Your task to perform on an android device: all mails in gmail Image 0: 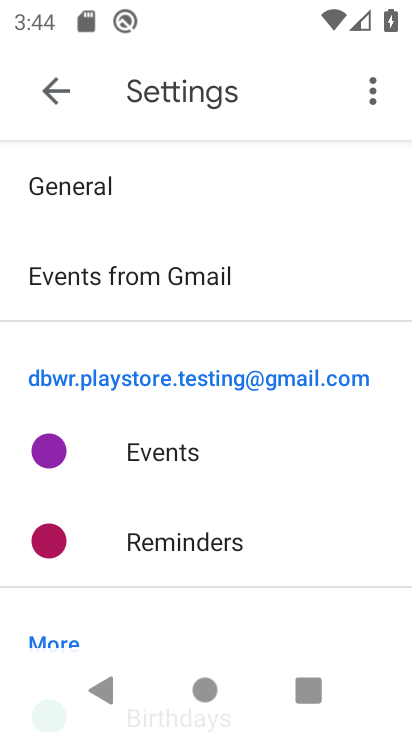
Step 0: press home button
Your task to perform on an android device: all mails in gmail Image 1: 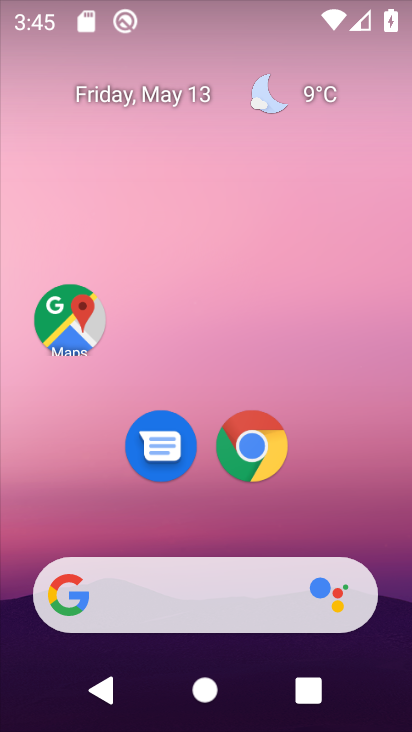
Step 1: drag from (336, 501) to (295, 64)
Your task to perform on an android device: all mails in gmail Image 2: 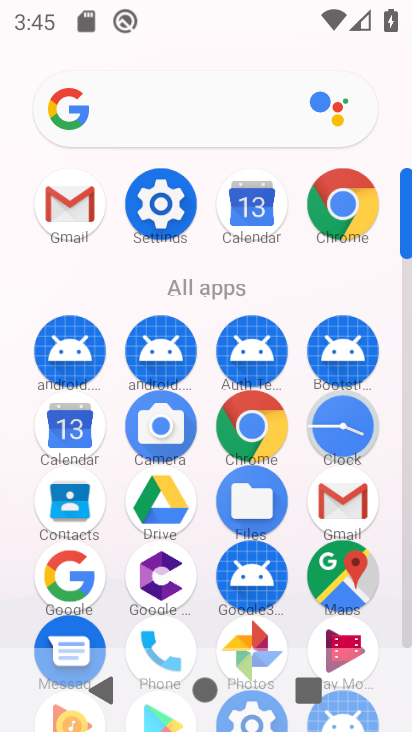
Step 2: click (331, 500)
Your task to perform on an android device: all mails in gmail Image 3: 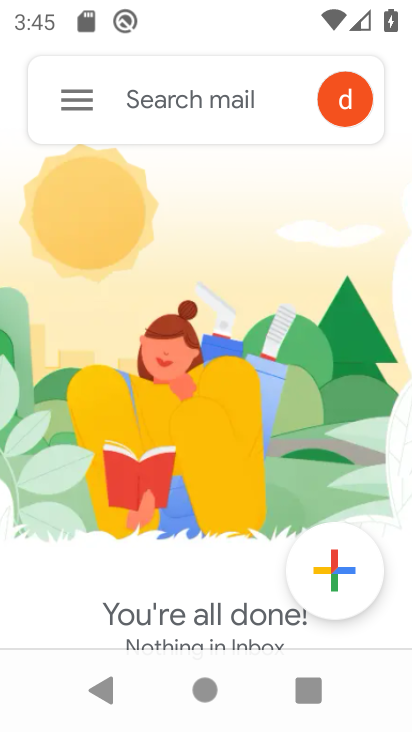
Step 3: click (81, 99)
Your task to perform on an android device: all mails in gmail Image 4: 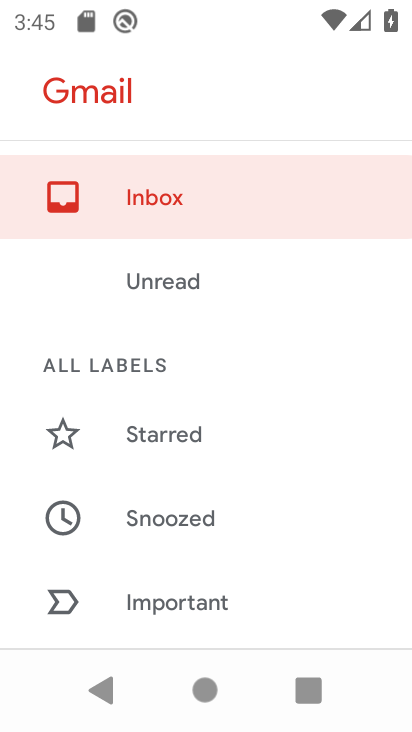
Step 4: drag from (198, 580) to (215, 185)
Your task to perform on an android device: all mails in gmail Image 5: 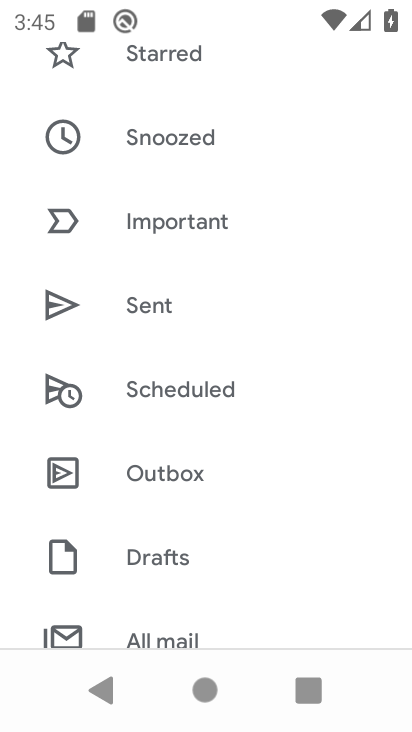
Step 5: drag from (230, 569) to (232, 182)
Your task to perform on an android device: all mails in gmail Image 6: 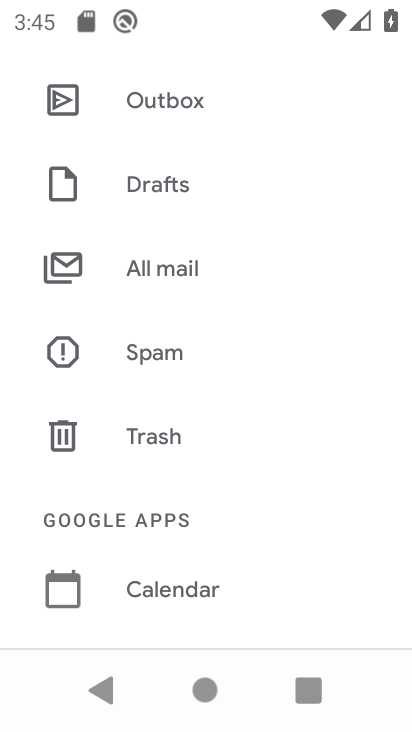
Step 6: click (192, 277)
Your task to perform on an android device: all mails in gmail Image 7: 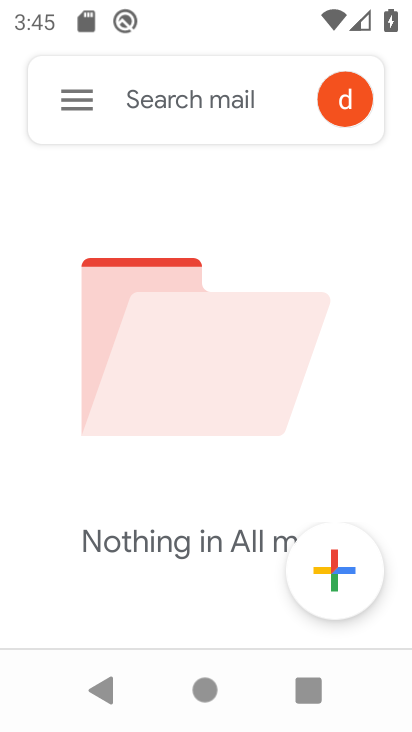
Step 7: task complete